Your task to perform on an android device: toggle translation in the chrome app Image 0: 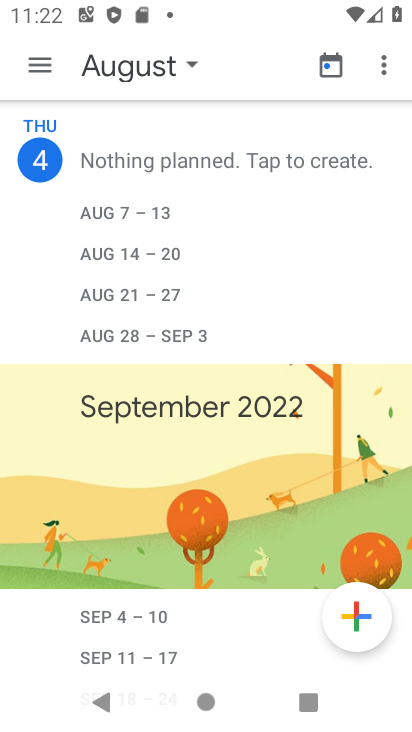
Step 0: press home button
Your task to perform on an android device: toggle translation in the chrome app Image 1: 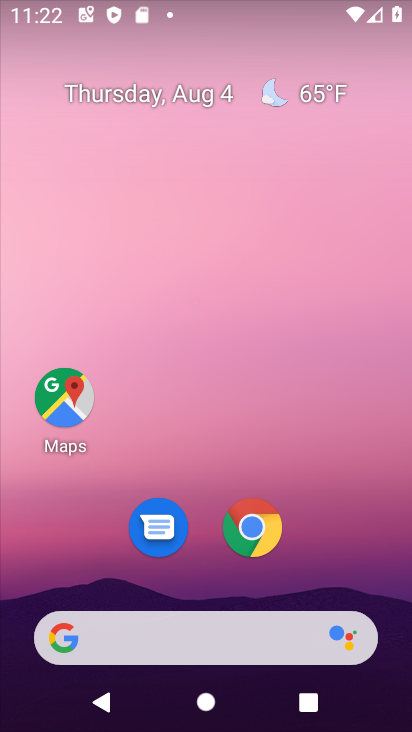
Step 1: click (262, 518)
Your task to perform on an android device: toggle translation in the chrome app Image 2: 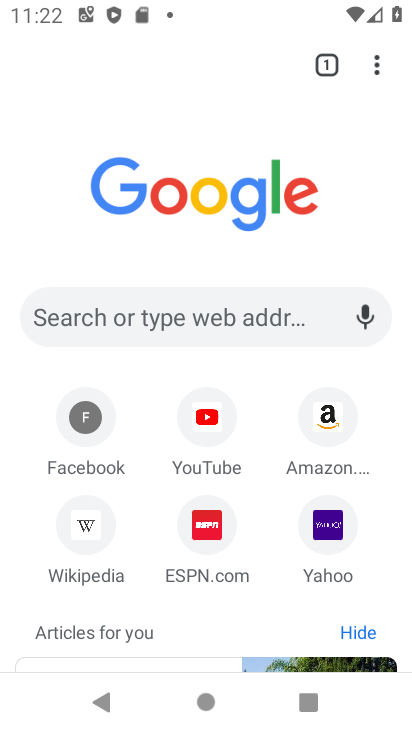
Step 2: click (378, 63)
Your task to perform on an android device: toggle translation in the chrome app Image 3: 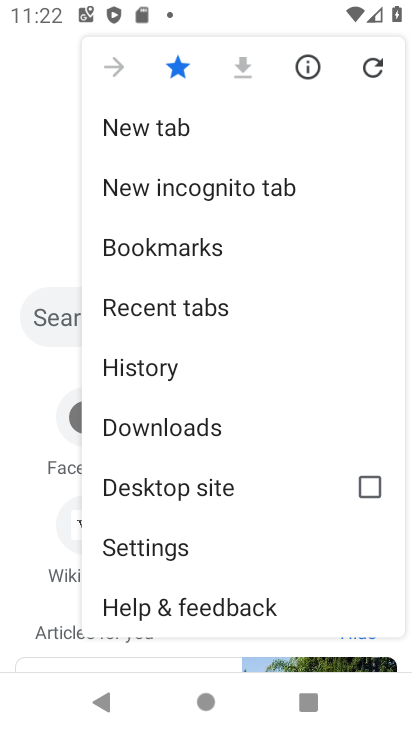
Step 3: click (160, 550)
Your task to perform on an android device: toggle translation in the chrome app Image 4: 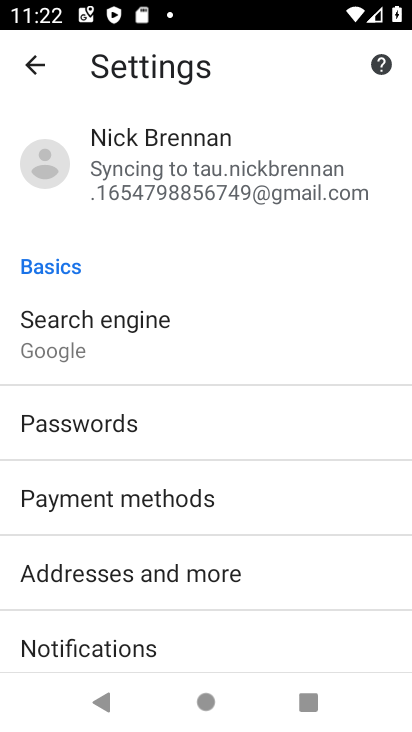
Step 4: drag from (281, 576) to (314, 201)
Your task to perform on an android device: toggle translation in the chrome app Image 5: 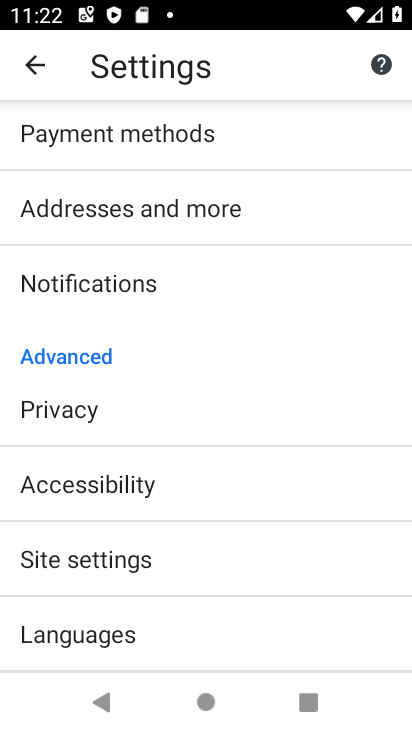
Step 5: click (171, 639)
Your task to perform on an android device: toggle translation in the chrome app Image 6: 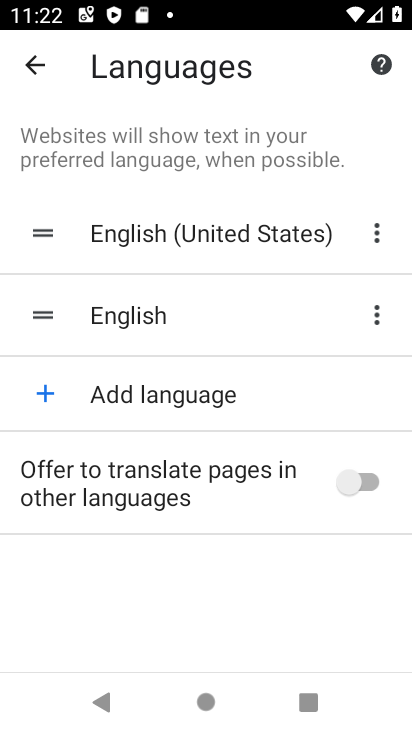
Step 6: click (371, 481)
Your task to perform on an android device: toggle translation in the chrome app Image 7: 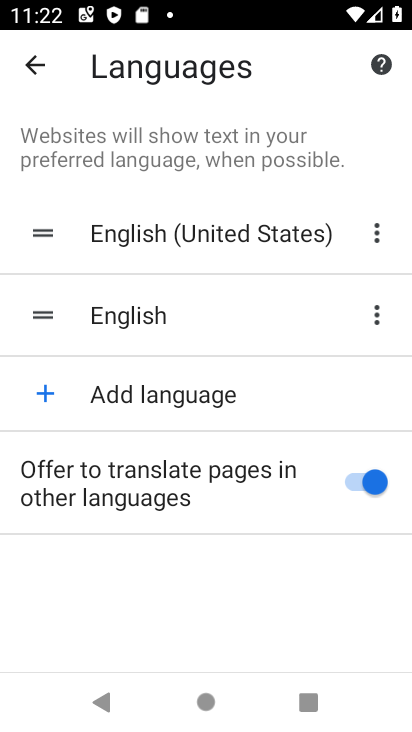
Step 7: task complete